Your task to perform on an android device: change the clock display to digital Image 0: 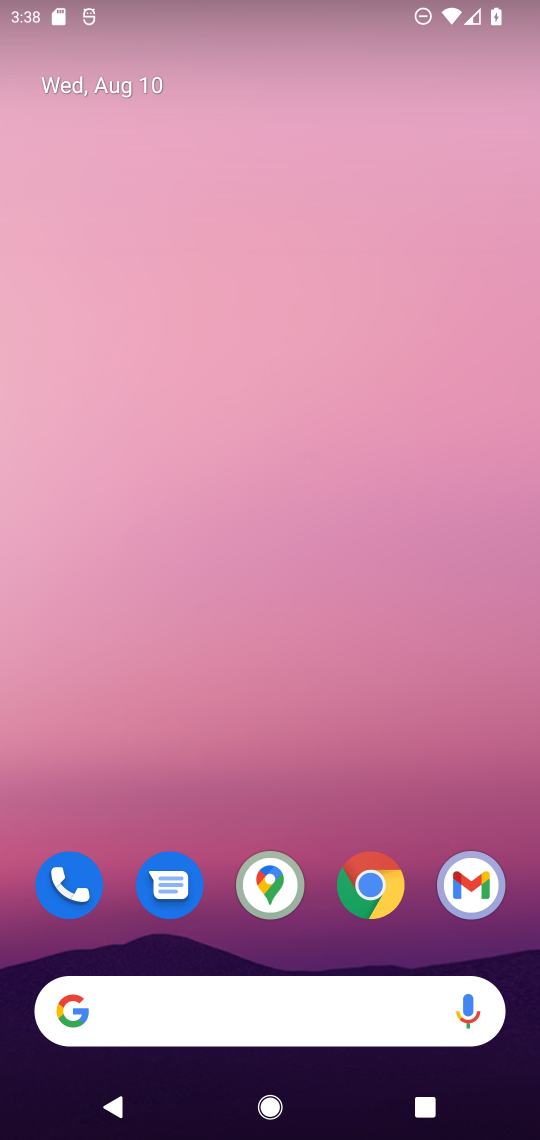
Step 0: drag from (319, 940) to (399, 1)
Your task to perform on an android device: change the clock display to digital Image 1: 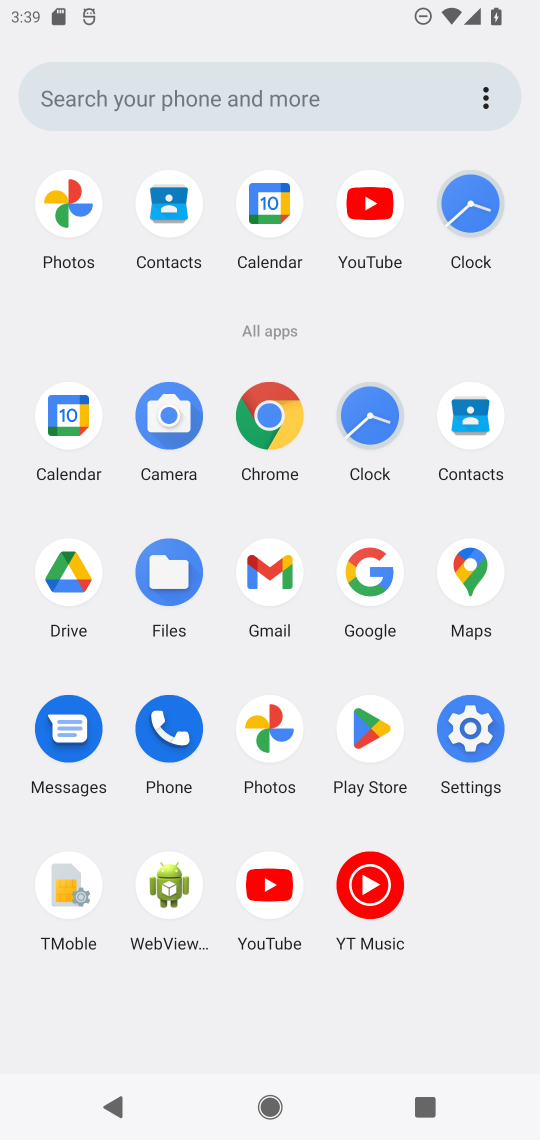
Step 1: click (471, 212)
Your task to perform on an android device: change the clock display to digital Image 2: 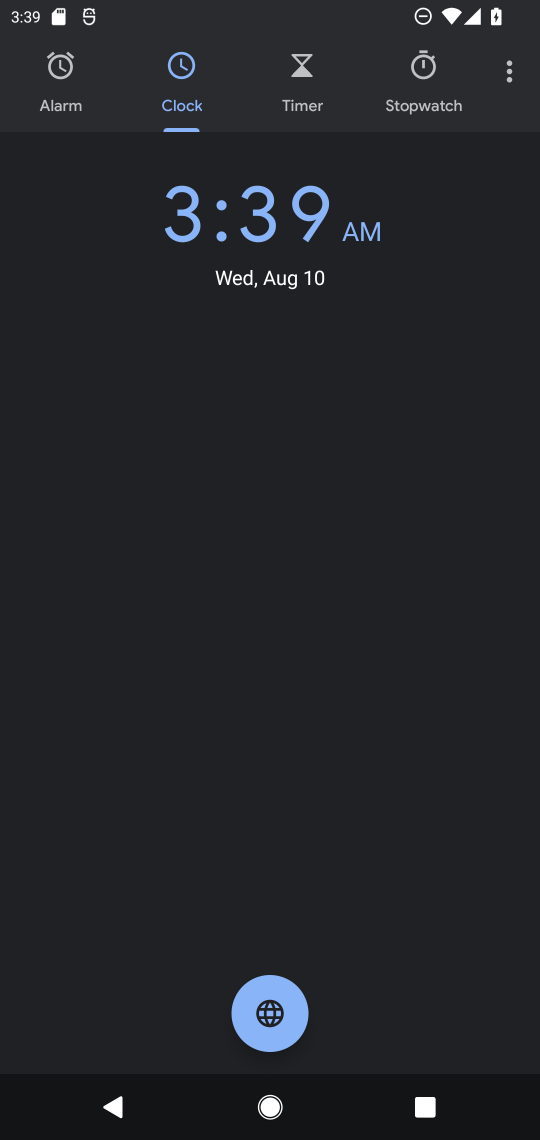
Step 2: click (500, 85)
Your task to perform on an android device: change the clock display to digital Image 3: 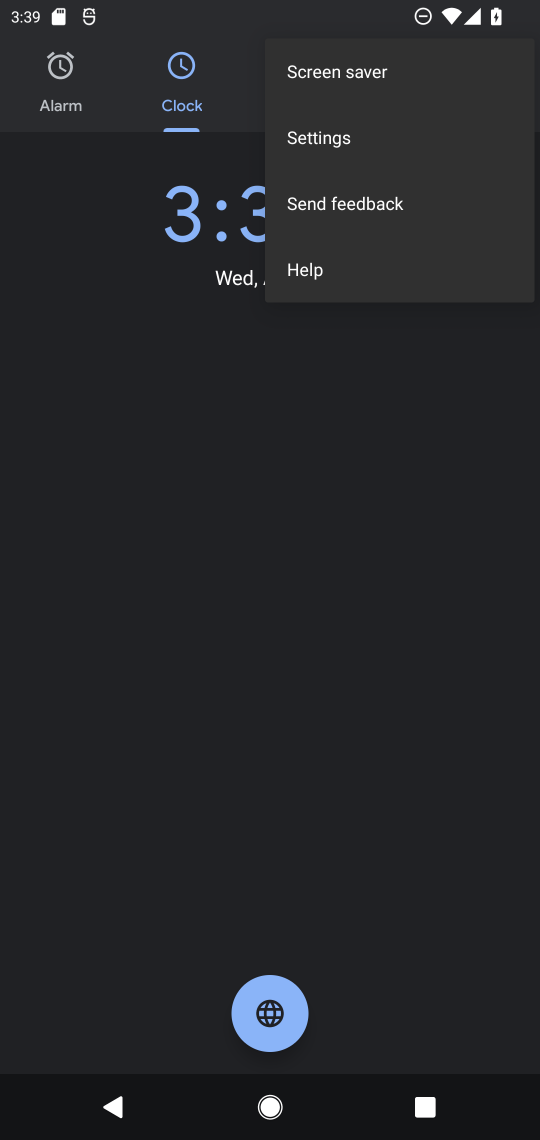
Step 3: click (320, 137)
Your task to perform on an android device: change the clock display to digital Image 4: 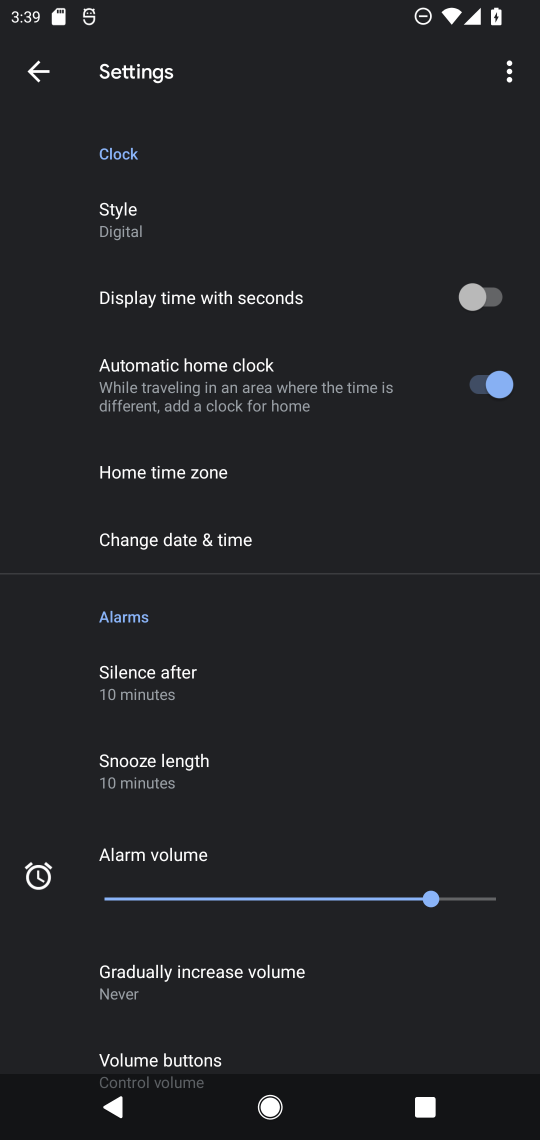
Step 4: click (129, 219)
Your task to perform on an android device: change the clock display to digital Image 5: 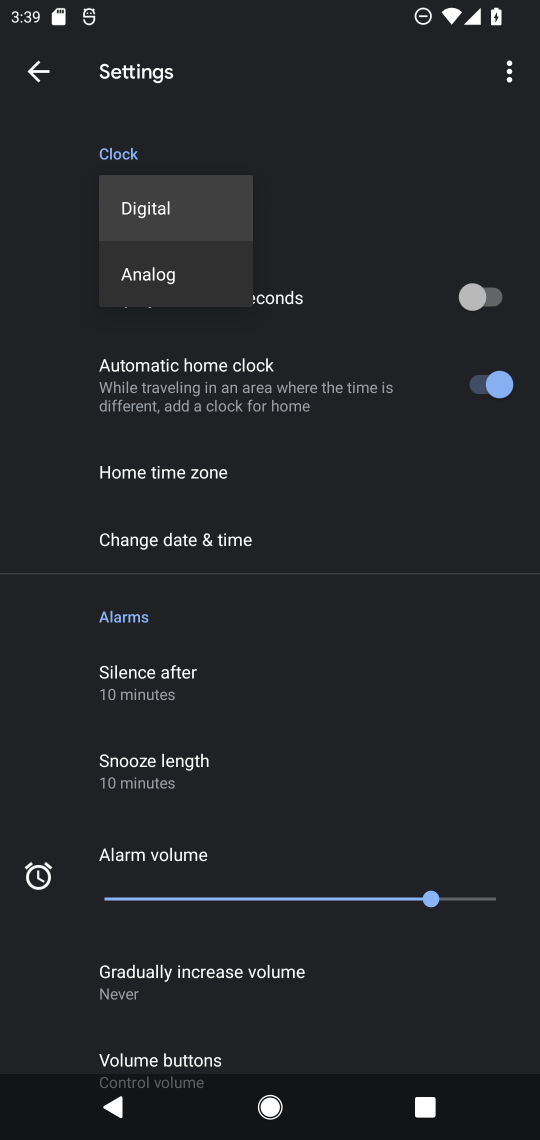
Step 5: click (142, 202)
Your task to perform on an android device: change the clock display to digital Image 6: 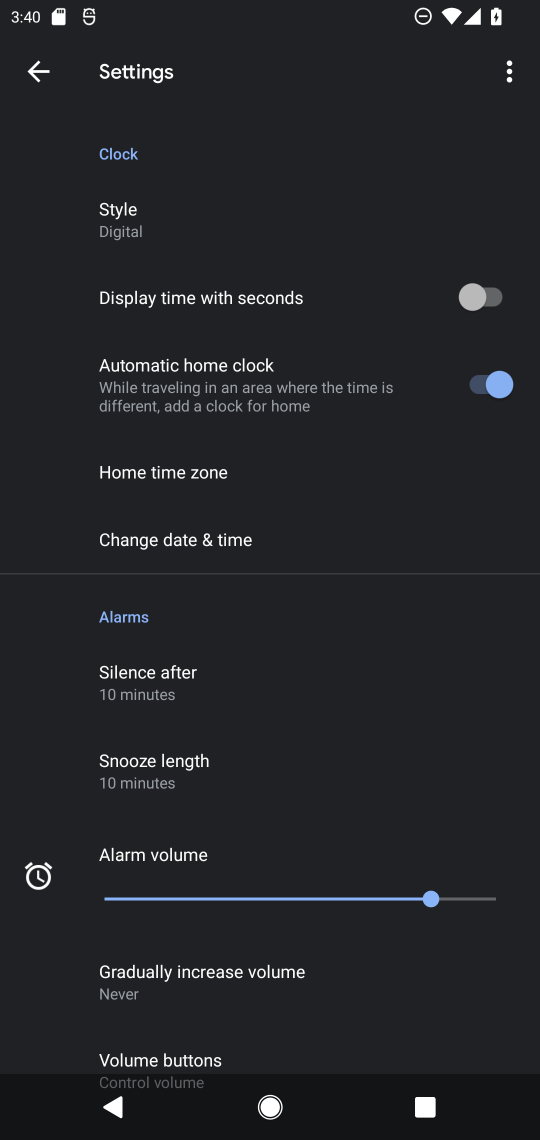
Step 6: task complete